Your task to perform on an android device: Open Amazon Image 0: 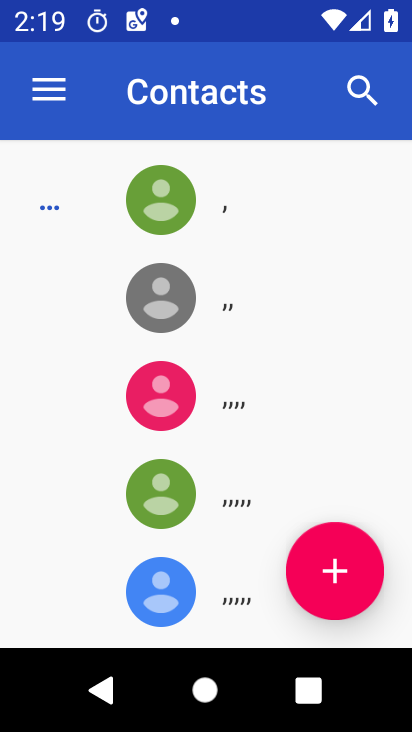
Step 0: press home button
Your task to perform on an android device: Open Amazon Image 1: 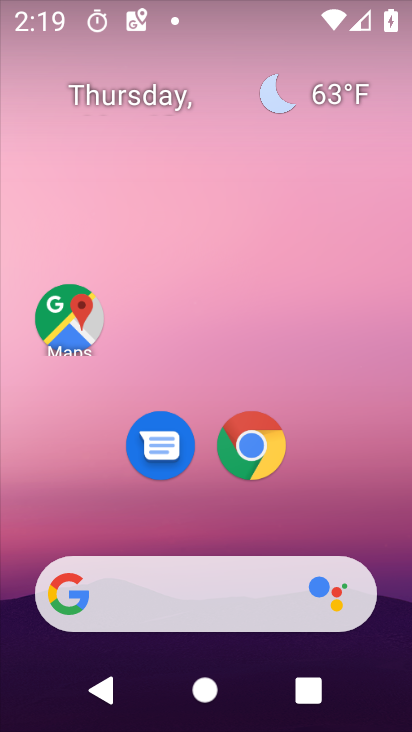
Step 1: click (239, 465)
Your task to perform on an android device: Open Amazon Image 2: 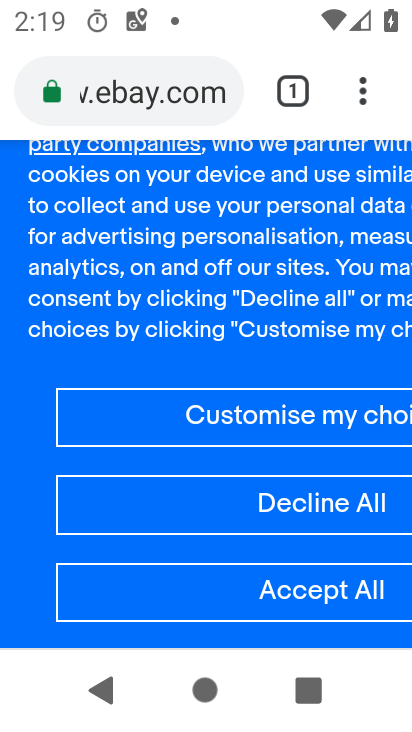
Step 2: click (154, 96)
Your task to perform on an android device: Open Amazon Image 3: 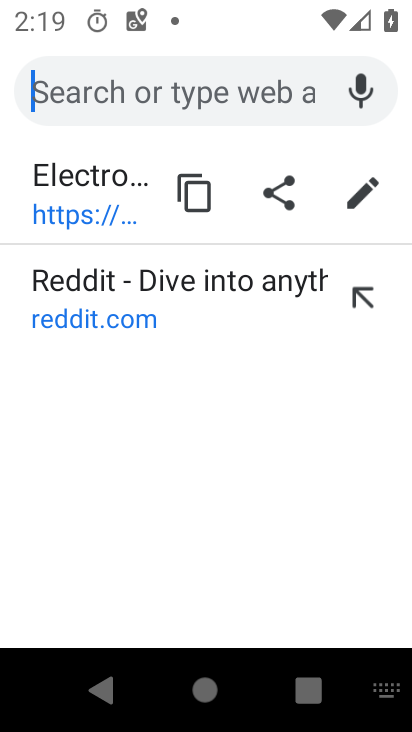
Step 3: type "amazon"
Your task to perform on an android device: Open Amazon Image 4: 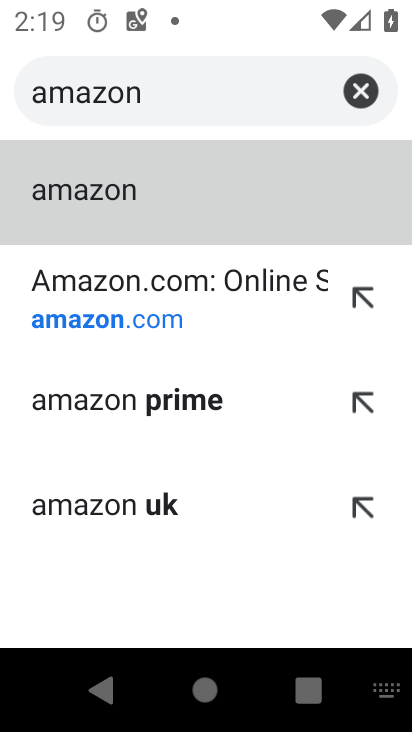
Step 4: click (139, 289)
Your task to perform on an android device: Open Amazon Image 5: 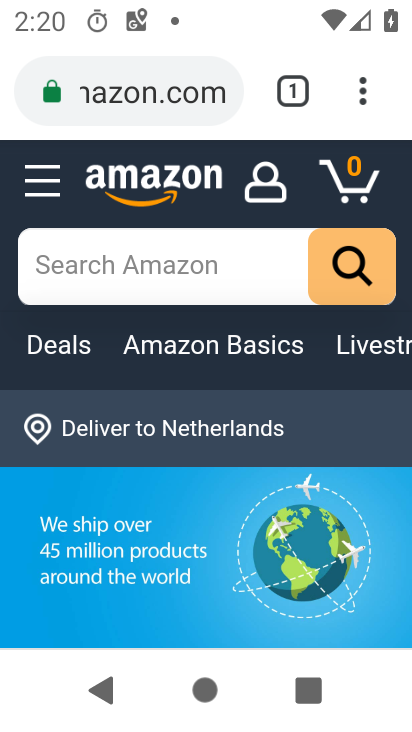
Step 5: task complete